Your task to perform on an android device: delete browsing data in the chrome app Image 0: 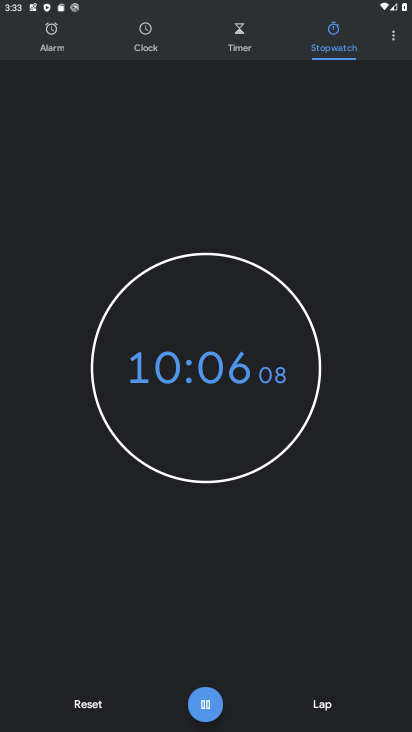
Step 0: press home button
Your task to perform on an android device: delete browsing data in the chrome app Image 1: 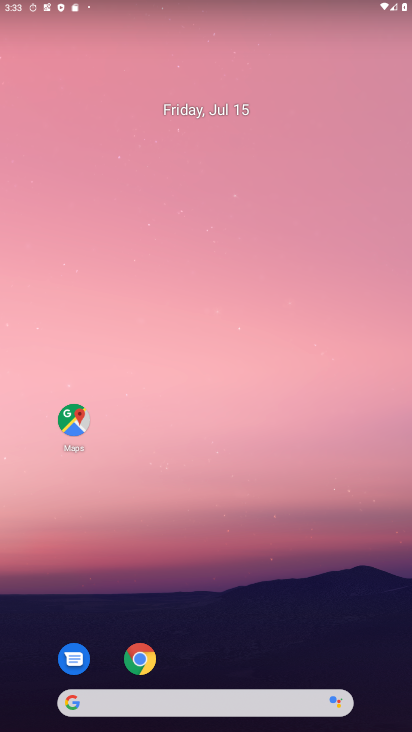
Step 1: click (137, 660)
Your task to perform on an android device: delete browsing data in the chrome app Image 2: 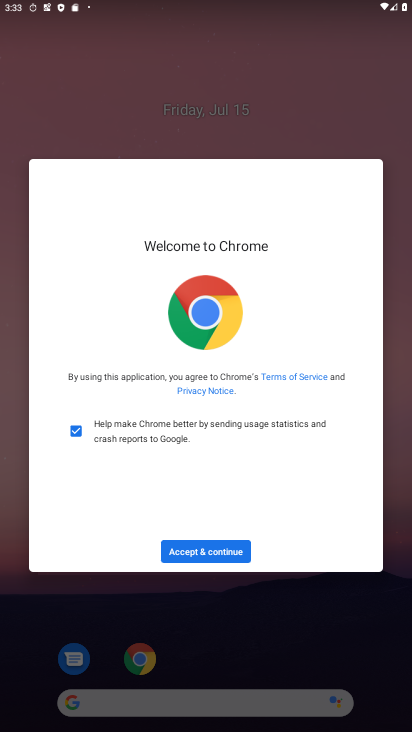
Step 2: click (211, 554)
Your task to perform on an android device: delete browsing data in the chrome app Image 3: 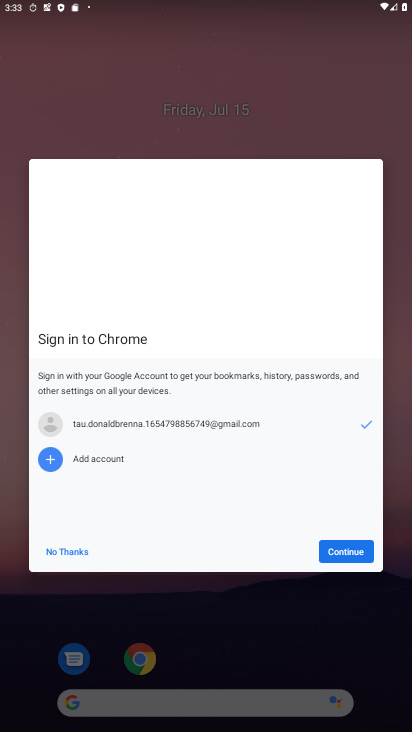
Step 3: click (336, 551)
Your task to perform on an android device: delete browsing data in the chrome app Image 4: 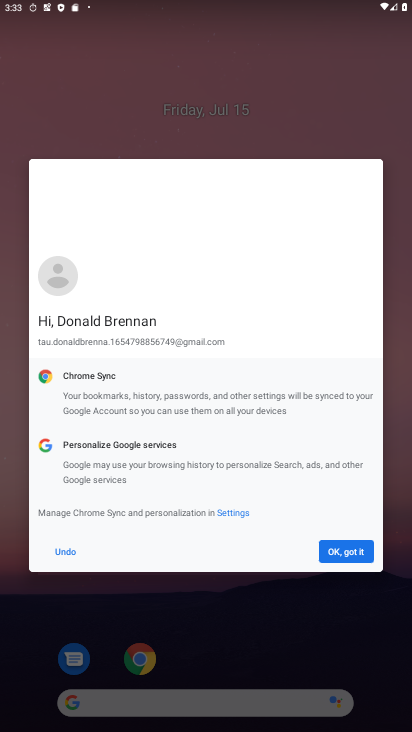
Step 4: click (336, 551)
Your task to perform on an android device: delete browsing data in the chrome app Image 5: 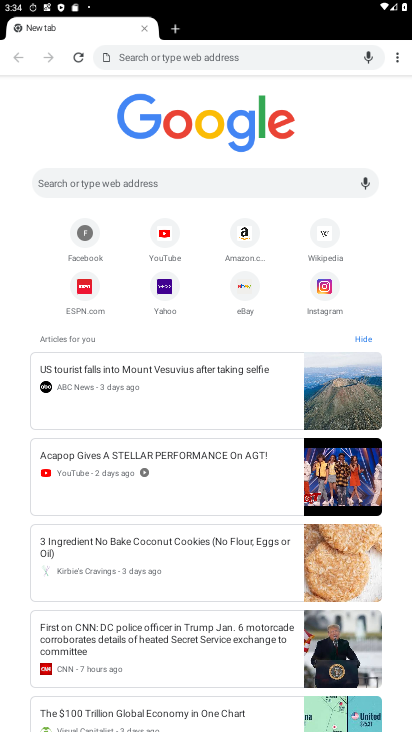
Step 5: click (397, 54)
Your task to perform on an android device: delete browsing data in the chrome app Image 6: 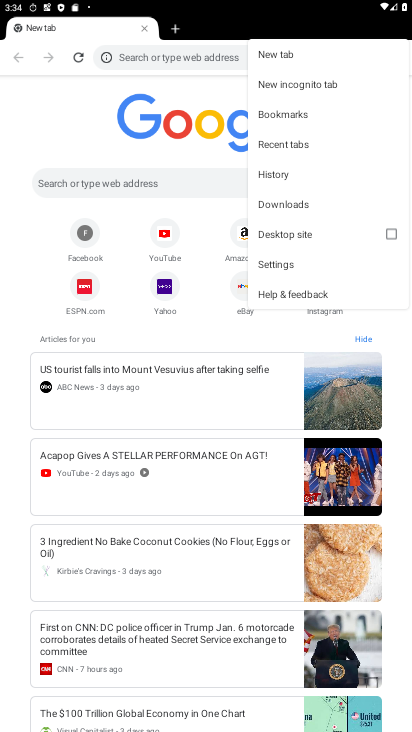
Step 6: click (288, 170)
Your task to perform on an android device: delete browsing data in the chrome app Image 7: 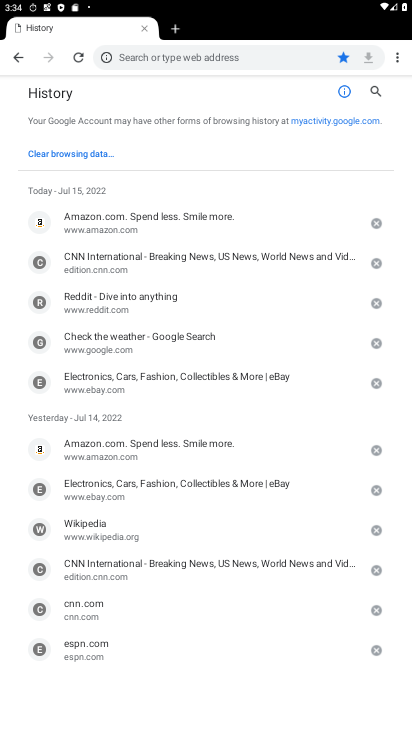
Step 7: click (88, 151)
Your task to perform on an android device: delete browsing data in the chrome app Image 8: 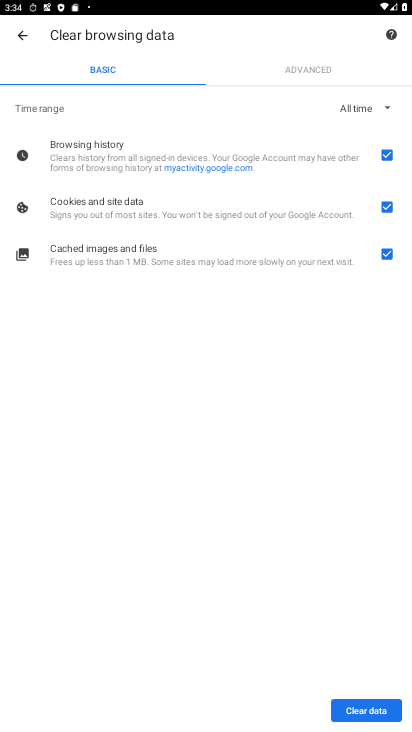
Step 8: click (386, 708)
Your task to perform on an android device: delete browsing data in the chrome app Image 9: 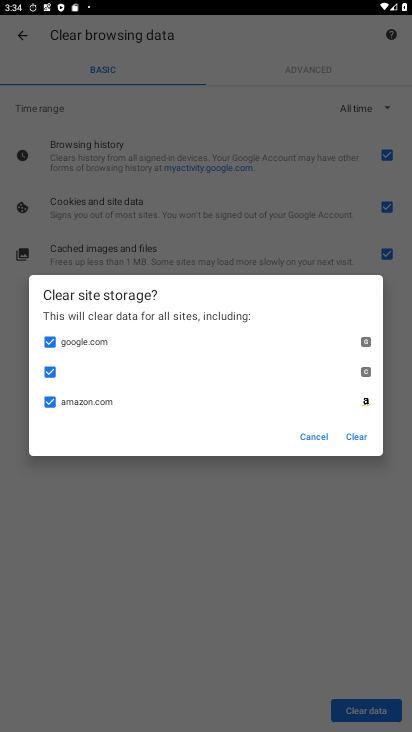
Step 9: click (364, 433)
Your task to perform on an android device: delete browsing data in the chrome app Image 10: 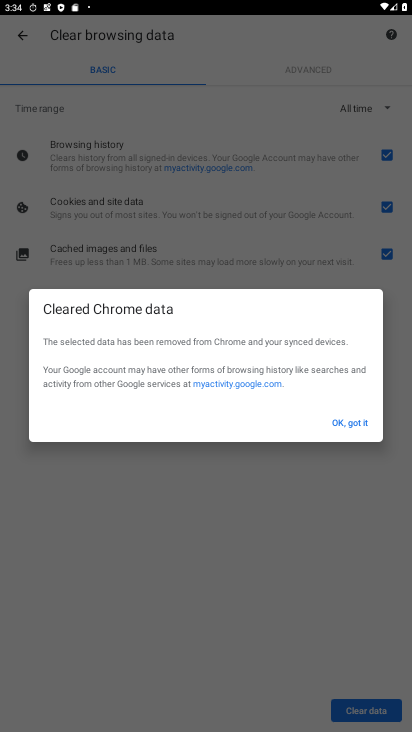
Step 10: click (364, 424)
Your task to perform on an android device: delete browsing data in the chrome app Image 11: 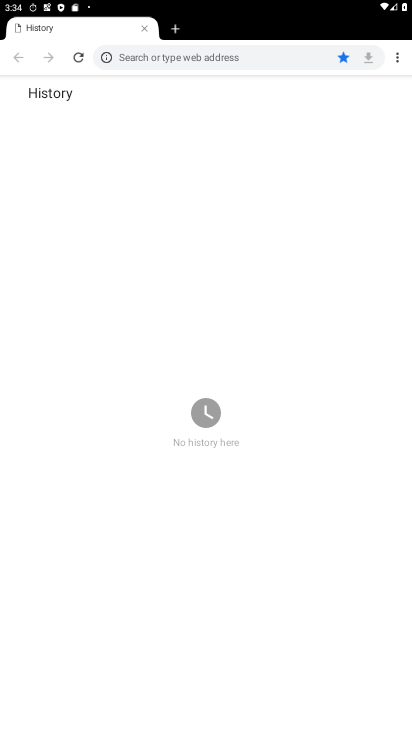
Step 11: task complete